Your task to perform on an android device: Search for seafood restaurants on Google Maps Image 0: 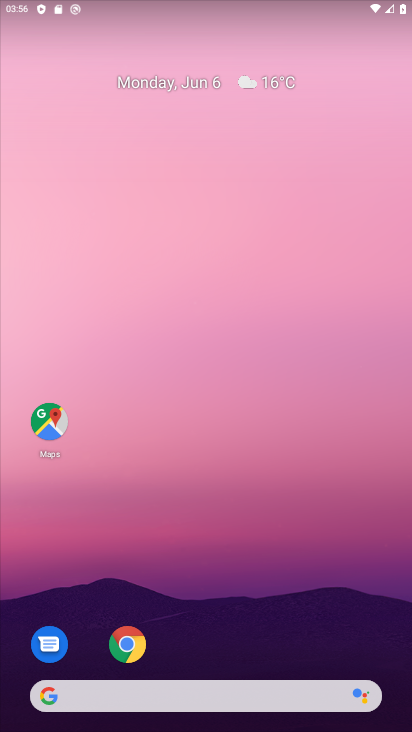
Step 0: drag from (389, 706) to (302, 207)
Your task to perform on an android device: Search for seafood restaurants on Google Maps Image 1: 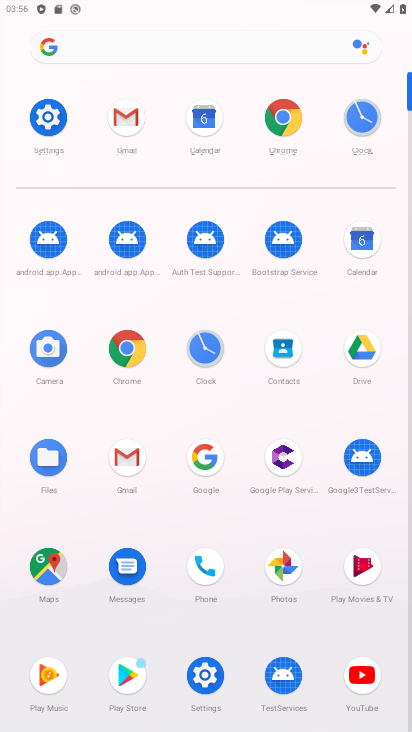
Step 1: click (69, 560)
Your task to perform on an android device: Search for seafood restaurants on Google Maps Image 2: 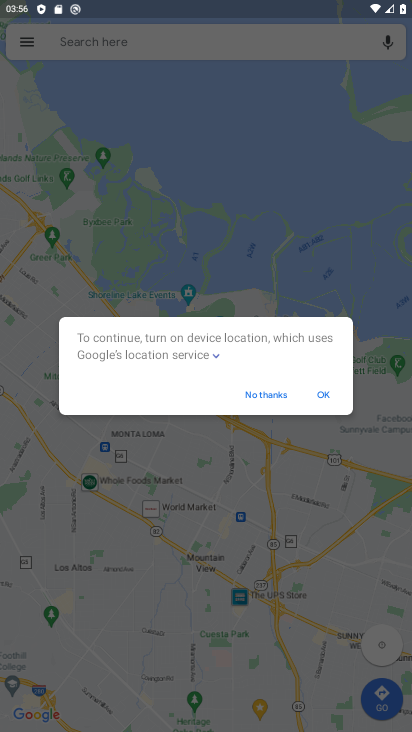
Step 2: click (325, 398)
Your task to perform on an android device: Search for seafood restaurants on Google Maps Image 3: 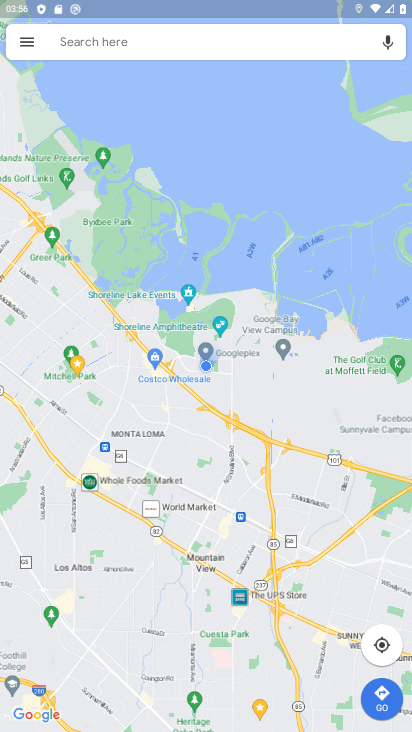
Step 3: click (89, 42)
Your task to perform on an android device: Search for seafood restaurants on Google Maps Image 4: 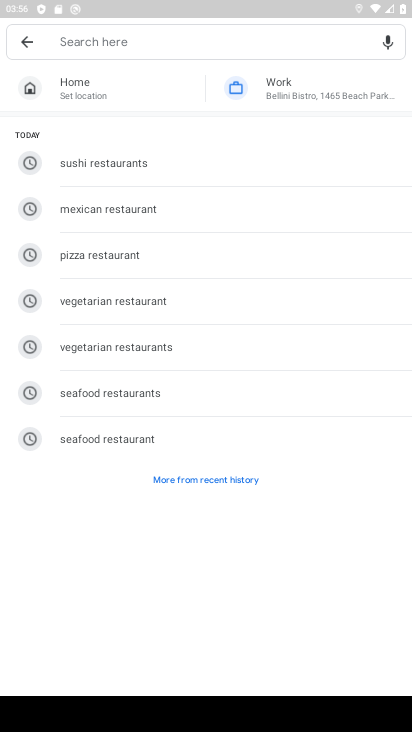
Step 4: type "seafood restaurants"
Your task to perform on an android device: Search for seafood restaurants on Google Maps Image 5: 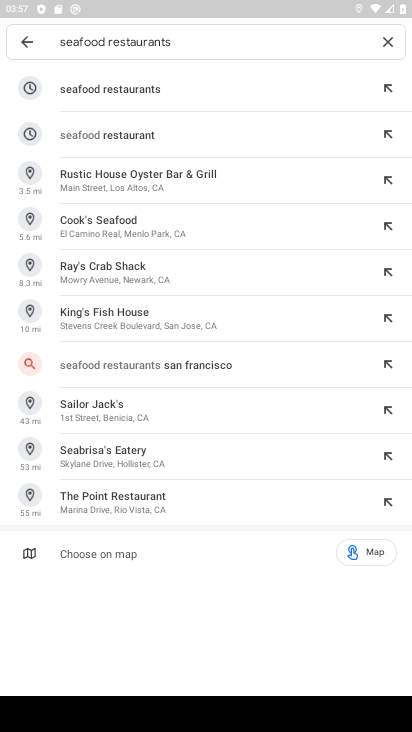
Step 5: click (118, 84)
Your task to perform on an android device: Search for seafood restaurants on Google Maps Image 6: 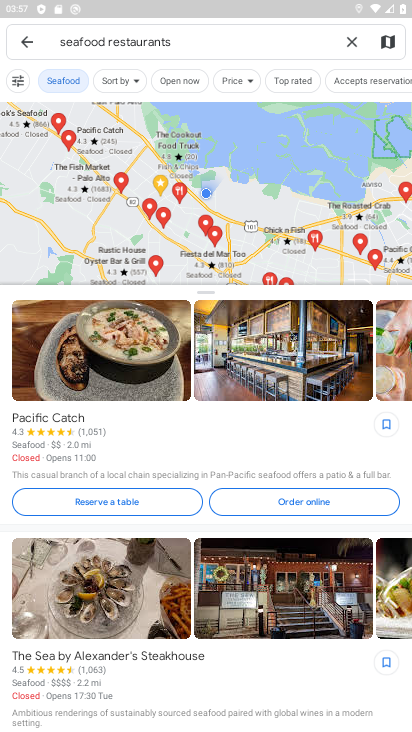
Step 6: task complete